Your task to perform on an android device: Go to Wikipedia Image 0: 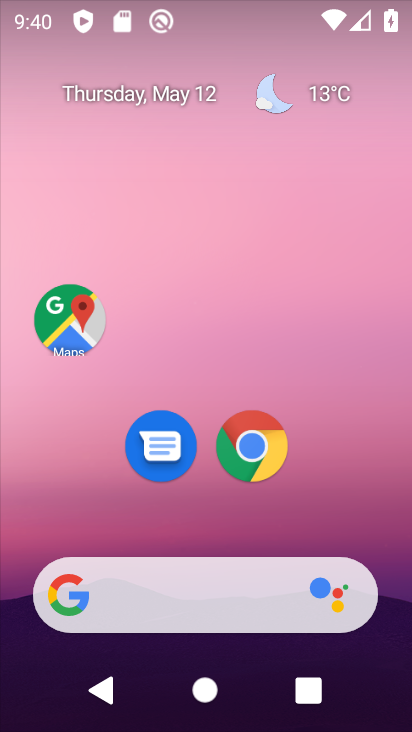
Step 0: drag from (234, 614) to (280, 111)
Your task to perform on an android device: Go to Wikipedia Image 1: 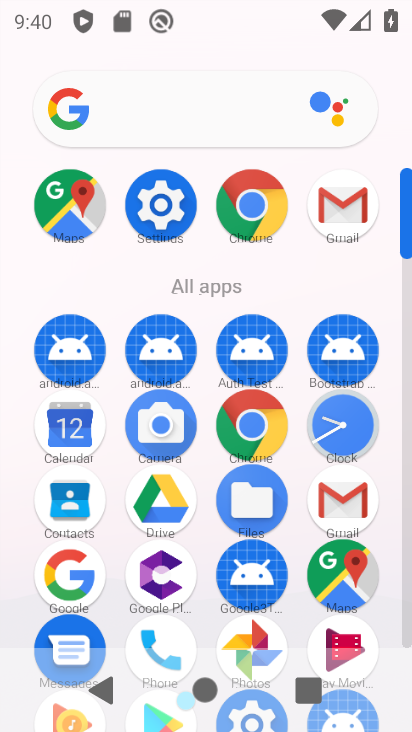
Step 1: click (264, 417)
Your task to perform on an android device: Go to Wikipedia Image 2: 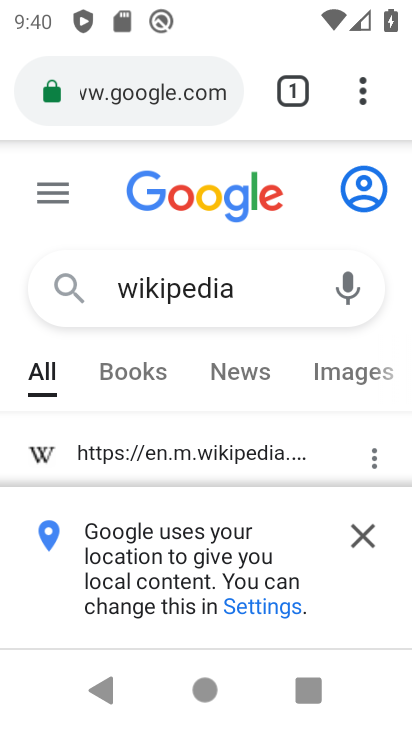
Step 2: click (352, 528)
Your task to perform on an android device: Go to Wikipedia Image 3: 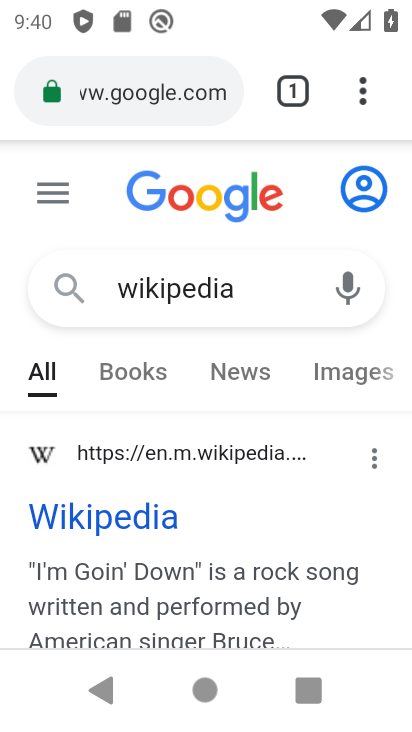
Step 3: task complete